Your task to perform on an android device: Open network settings Image 0: 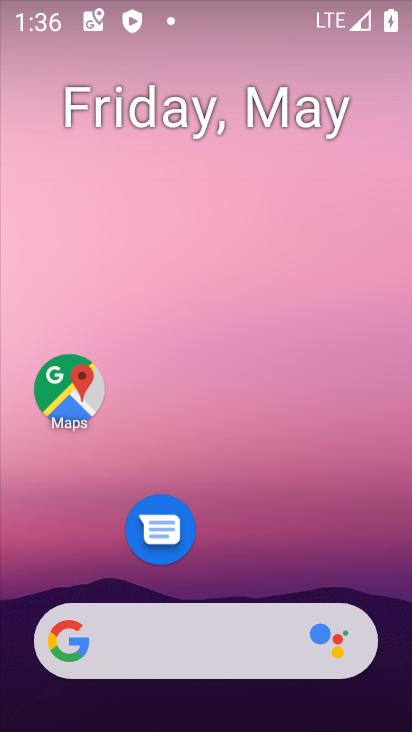
Step 0: drag from (207, 546) to (246, 147)
Your task to perform on an android device: Open network settings Image 1: 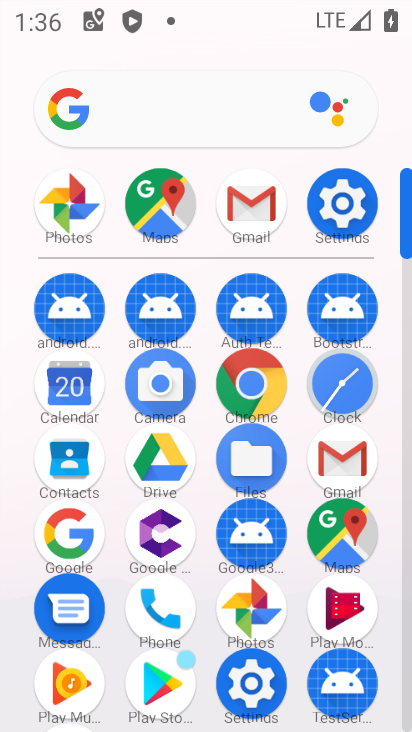
Step 1: click (259, 695)
Your task to perform on an android device: Open network settings Image 2: 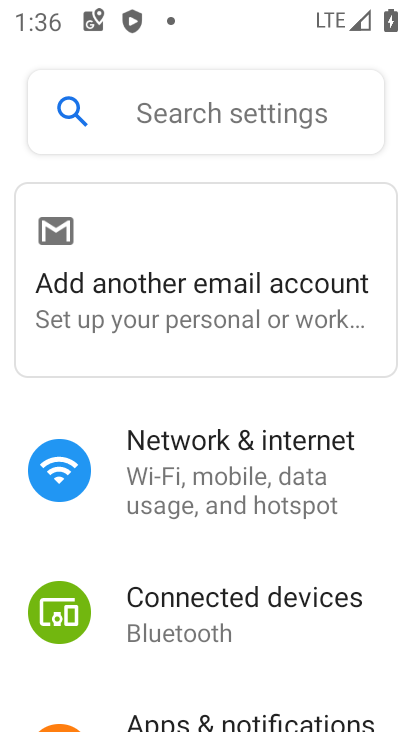
Step 2: click (238, 458)
Your task to perform on an android device: Open network settings Image 3: 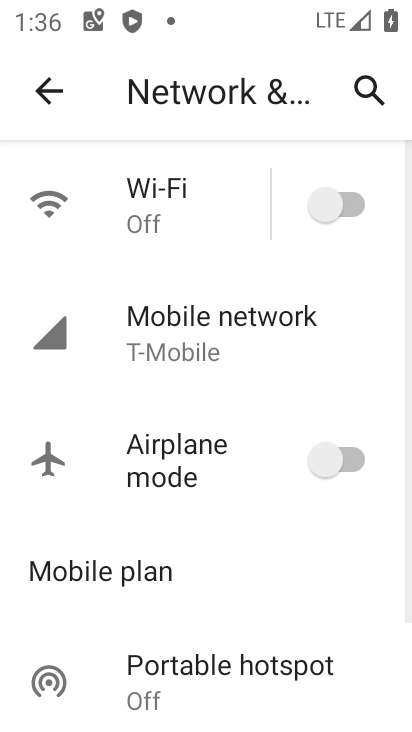
Step 3: task complete